Your task to perform on an android device: Do I have any events this weekend? Image 0: 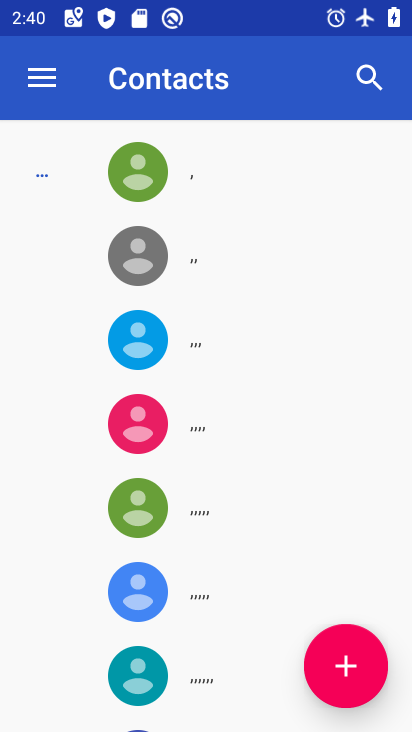
Step 0: press home button
Your task to perform on an android device: Do I have any events this weekend? Image 1: 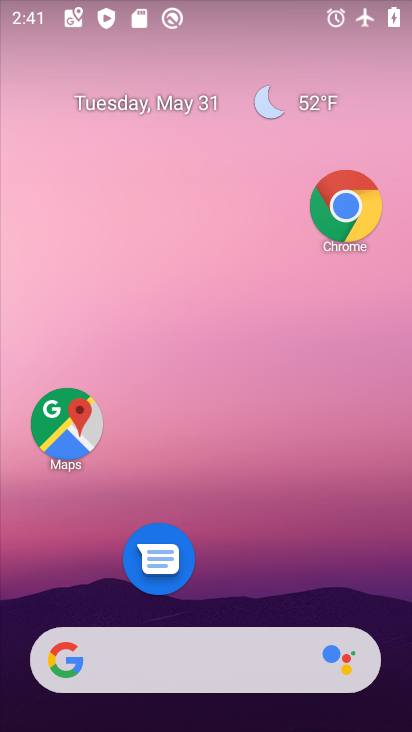
Step 1: drag from (256, 561) to (236, 190)
Your task to perform on an android device: Do I have any events this weekend? Image 2: 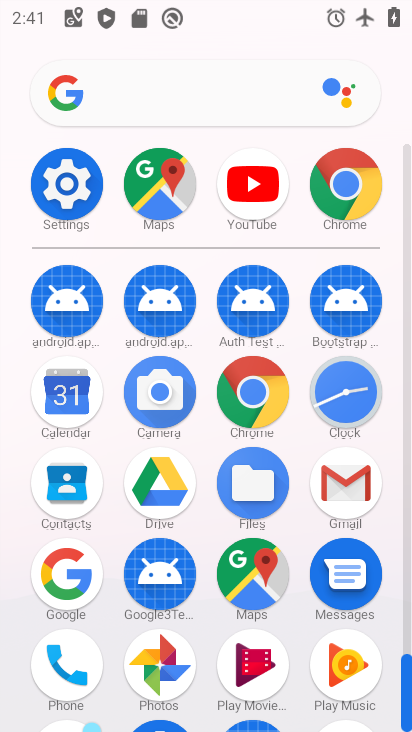
Step 2: drag from (205, 263) to (205, 56)
Your task to perform on an android device: Do I have any events this weekend? Image 3: 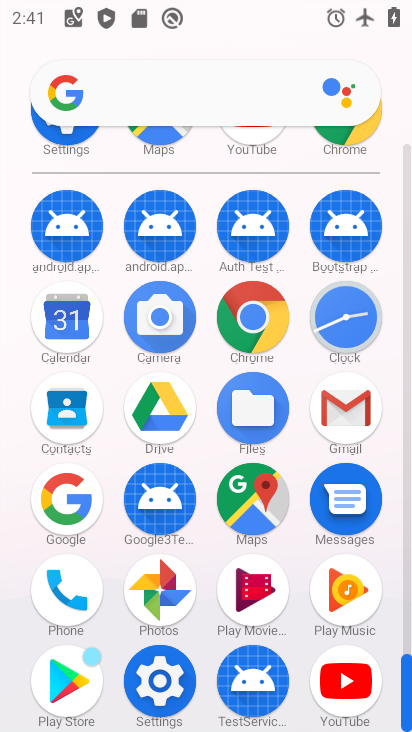
Step 3: click (45, 341)
Your task to perform on an android device: Do I have any events this weekend? Image 4: 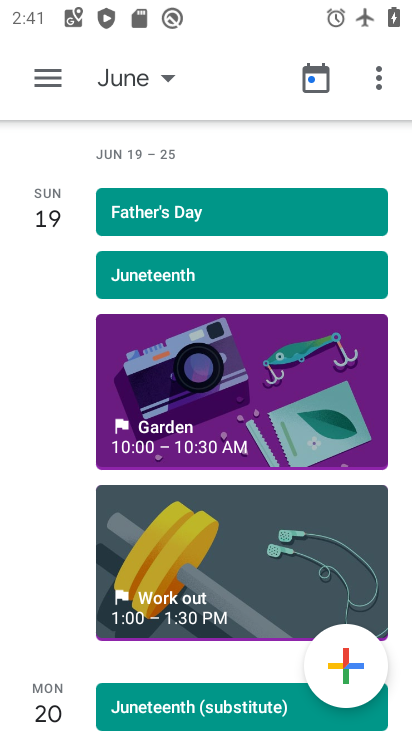
Step 4: click (132, 92)
Your task to perform on an android device: Do I have any events this weekend? Image 5: 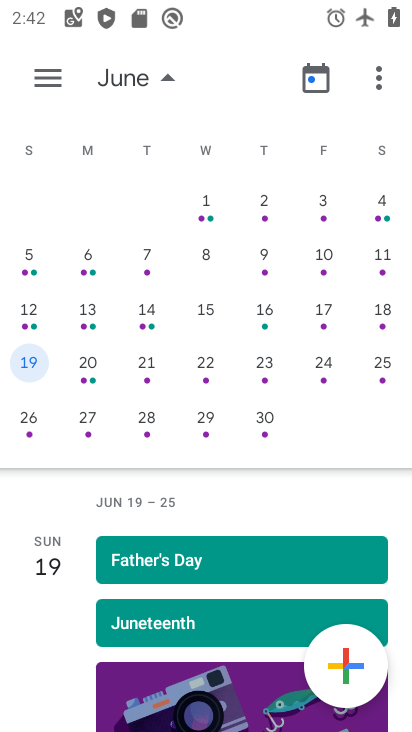
Step 5: drag from (98, 243) to (404, 353)
Your task to perform on an android device: Do I have any events this weekend? Image 6: 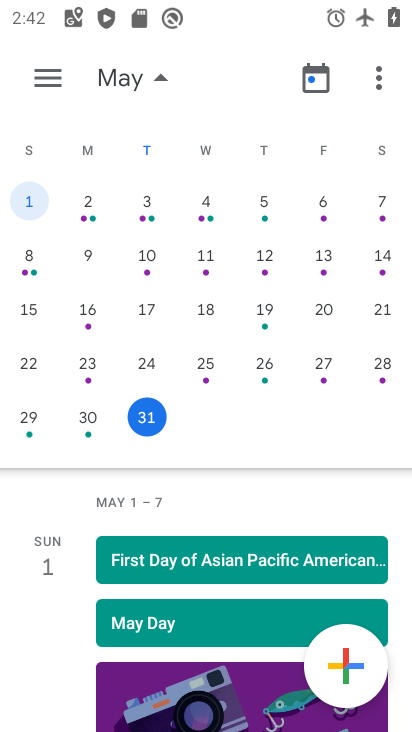
Step 6: click (142, 79)
Your task to perform on an android device: Do I have any events this weekend? Image 7: 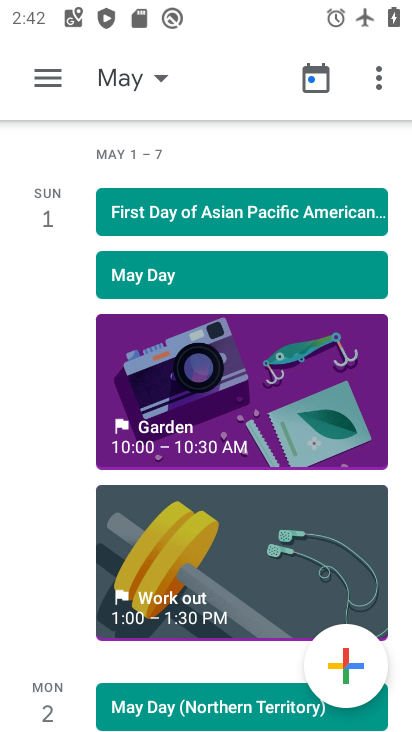
Step 7: task complete